Your task to perform on an android device: turn notification dots on Image 0: 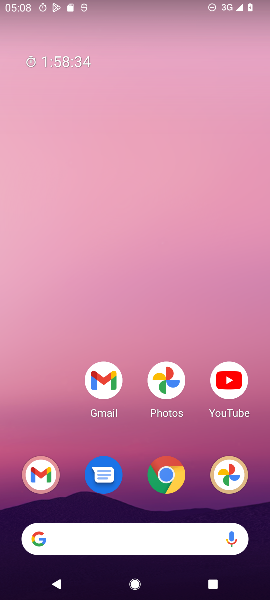
Step 0: press home button
Your task to perform on an android device: turn notification dots on Image 1: 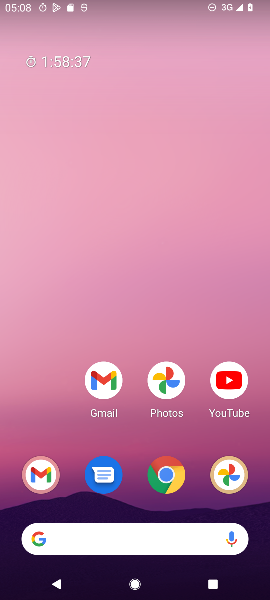
Step 1: drag from (36, 417) to (43, 227)
Your task to perform on an android device: turn notification dots on Image 2: 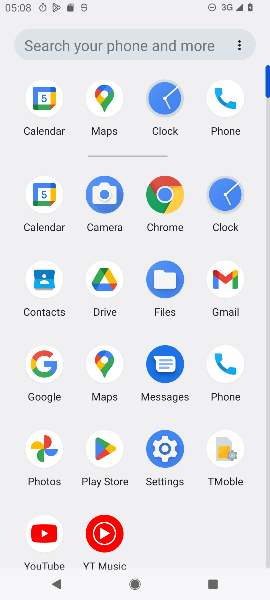
Step 2: click (171, 452)
Your task to perform on an android device: turn notification dots on Image 3: 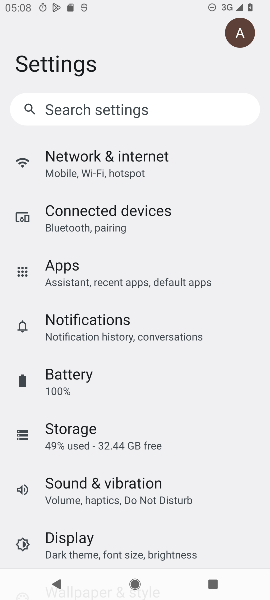
Step 3: drag from (204, 430) to (223, 335)
Your task to perform on an android device: turn notification dots on Image 4: 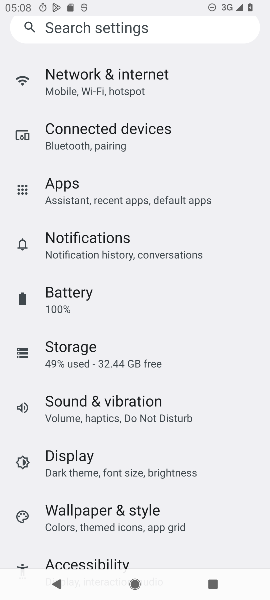
Step 4: drag from (226, 460) to (237, 373)
Your task to perform on an android device: turn notification dots on Image 5: 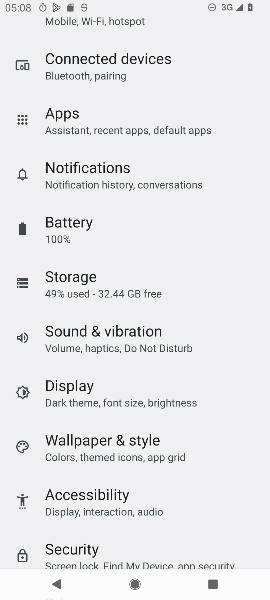
Step 5: drag from (229, 473) to (239, 388)
Your task to perform on an android device: turn notification dots on Image 6: 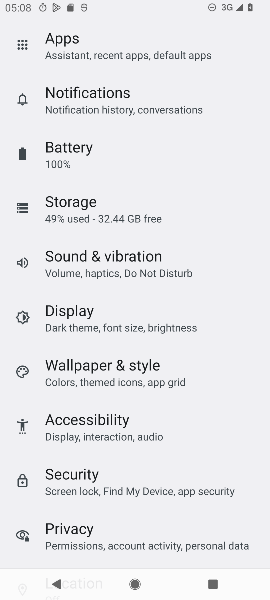
Step 6: drag from (225, 458) to (226, 367)
Your task to perform on an android device: turn notification dots on Image 7: 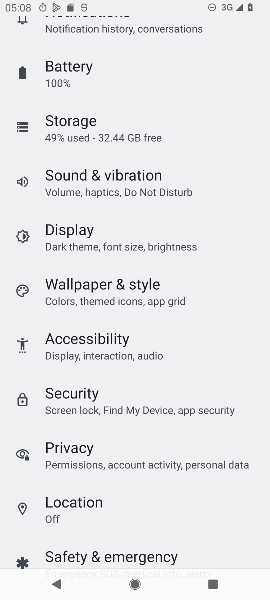
Step 7: drag from (219, 458) to (232, 358)
Your task to perform on an android device: turn notification dots on Image 8: 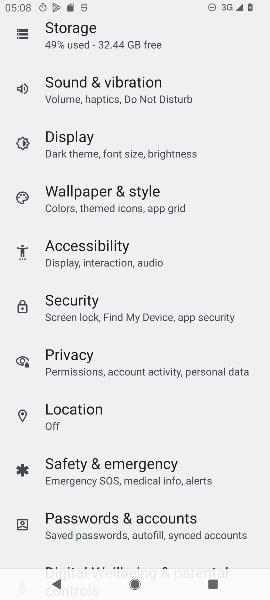
Step 8: drag from (237, 431) to (242, 377)
Your task to perform on an android device: turn notification dots on Image 9: 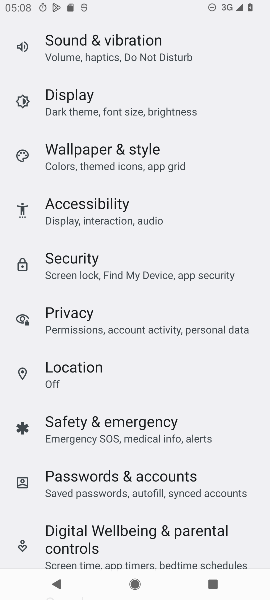
Step 9: drag from (232, 194) to (236, 293)
Your task to perform on an android device: turn notification dots on Image 10: 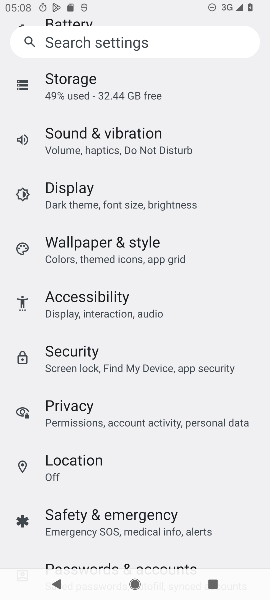
Step 10: drag from (233, 200) to (243, 254)
Your task to perform on an android device: turn notification dots on Image 11: 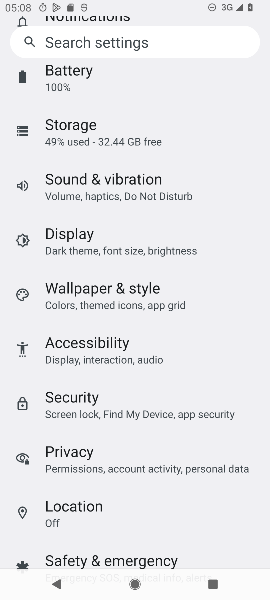
Step 11: drag from (234, 161) to (235, 280)
Your task to perform on an android device: turn notification dots on Image 12: 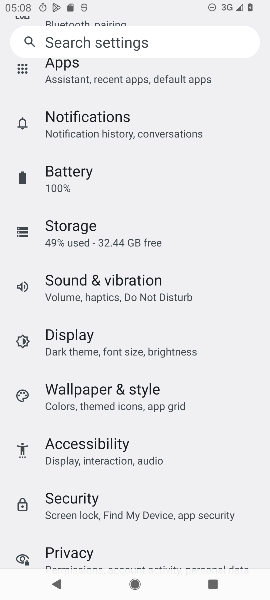
Step 12: drag from (242, 149) to (237, 292)
Your task to perform on an android device: turn notification dots on Image 13: 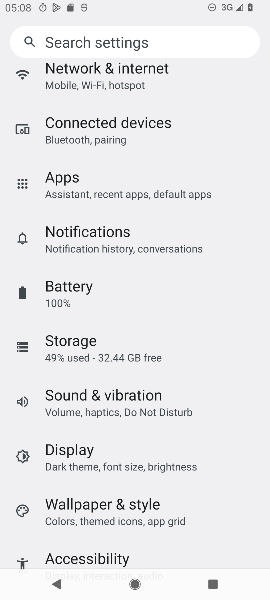
Step 13: drag from (231, 115) to (235, 313)
Your task to perform on an android device: turn notification dots on Image 14: 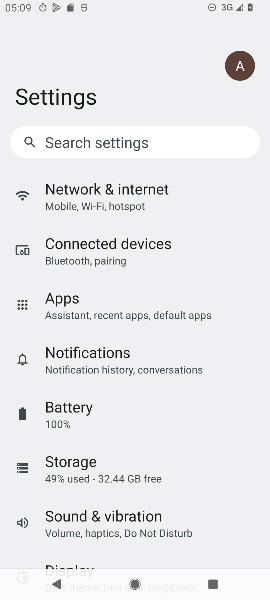
Step 14: click (166, 365)
Your task to perform on an android device: turn notification dots on Image 15: 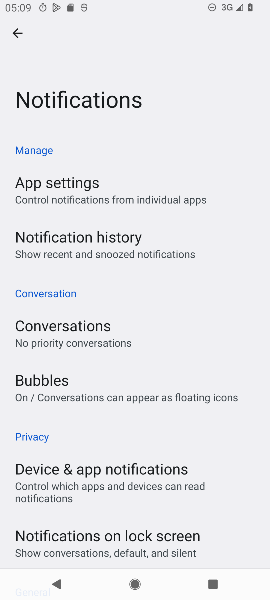
Step 15: task complete